Your task to perform on an android device: Open Google Maps Image 0: 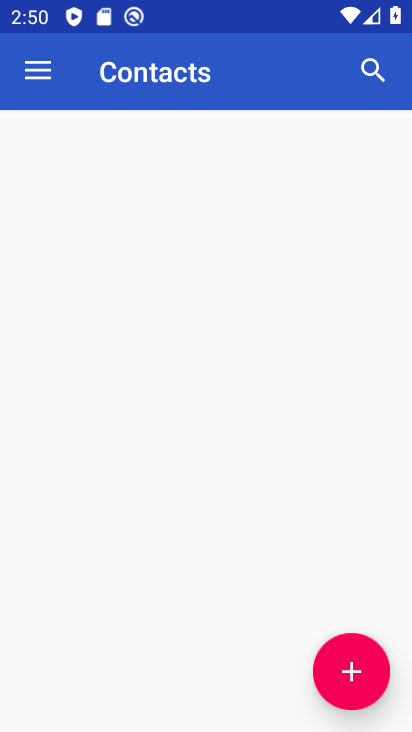
Step 0: press home button
Your task to perform on an android device: Open Google Maps Image 1: 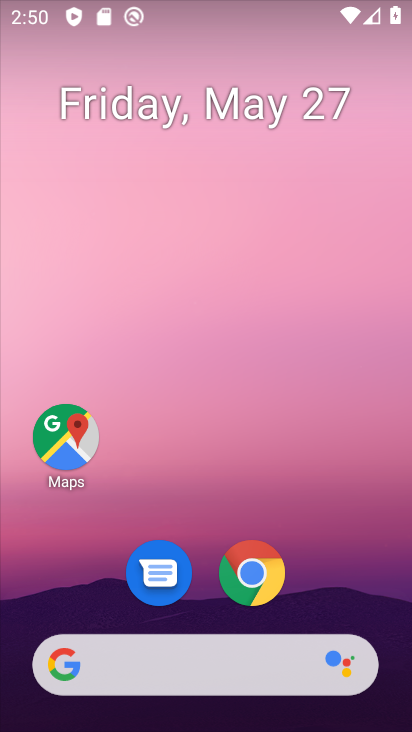
Step 1: click (50, 446)
Your task to perform on an android device: Open Google Maps Image 2: 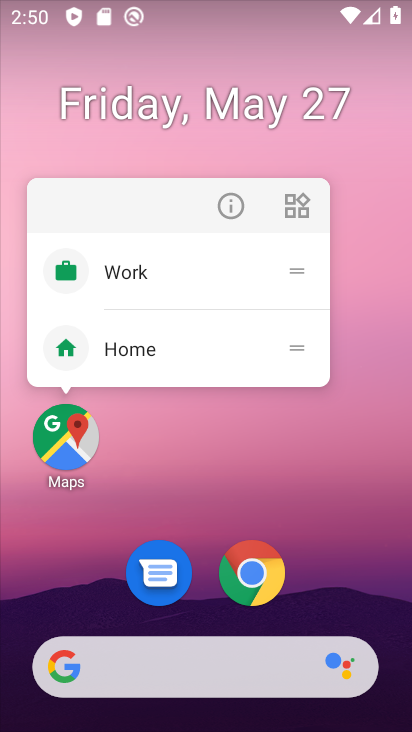
Step 2: click (46, 440)
Your task to perform on an android device: Open Google Maps Image 3: 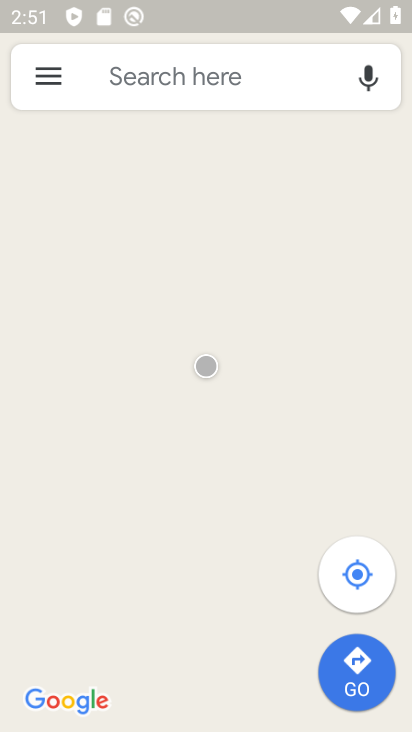
Step 3: task complete